Your task to perform on an android device: move a message to another label in the gmail app Image 0: 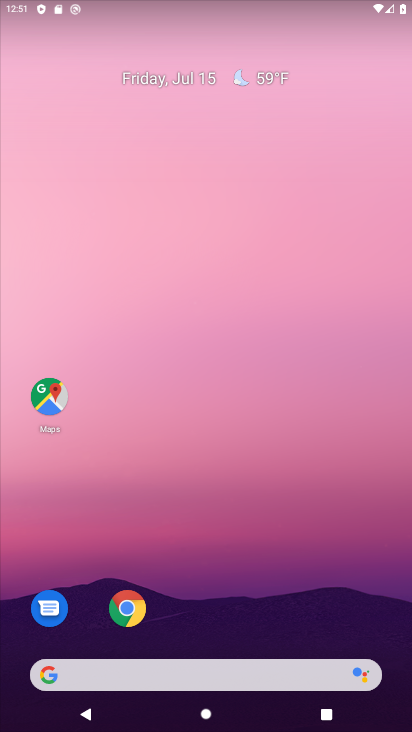
Step 0: drag from (273, 661) to (259, 298)
Your task to perform on an android device: move a message to another label in the gmail app Image 1: 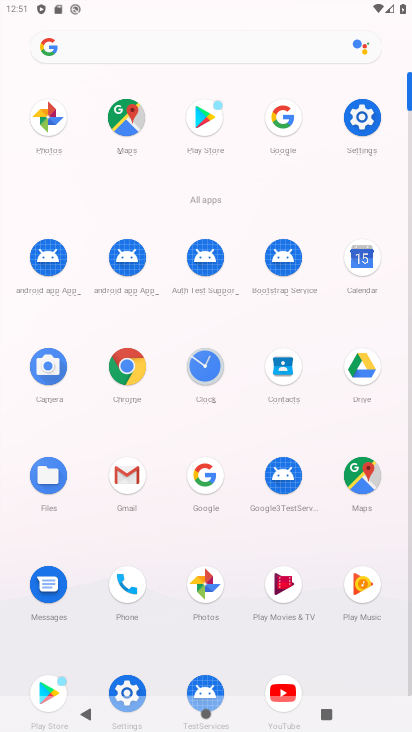
Step 1: click (135, 470)
Your task to perform on an android device: move a message to another label in the gmail app Image 2: 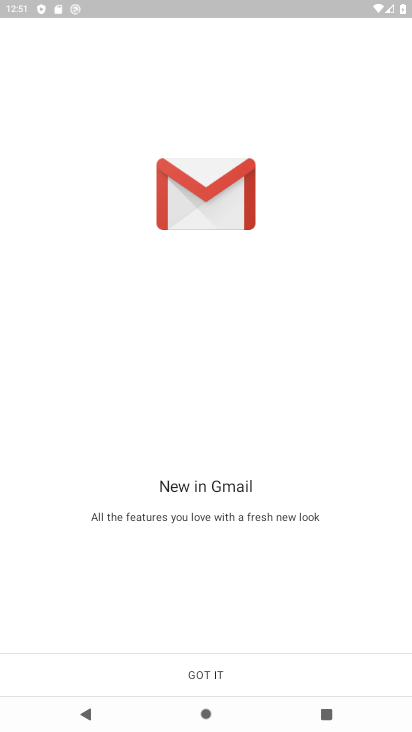
Step 2: click (216, 674)
Your task to perform on an android device: move a message to another label in the gmail app Image 3: 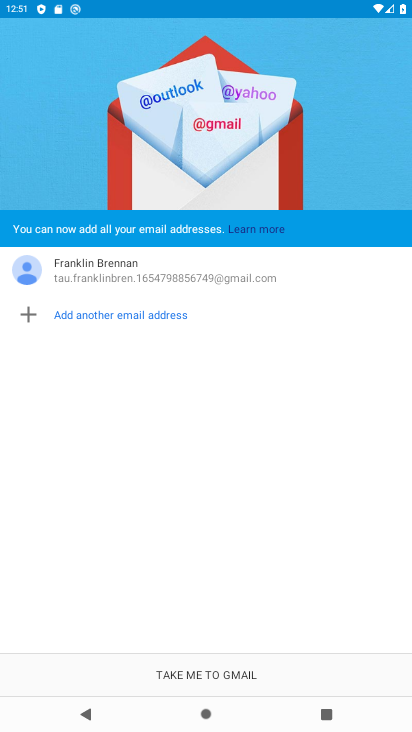
Step 3: click (214, 673)
Your task to perform on an android device: move a message to another label in the gmail app Image 4: 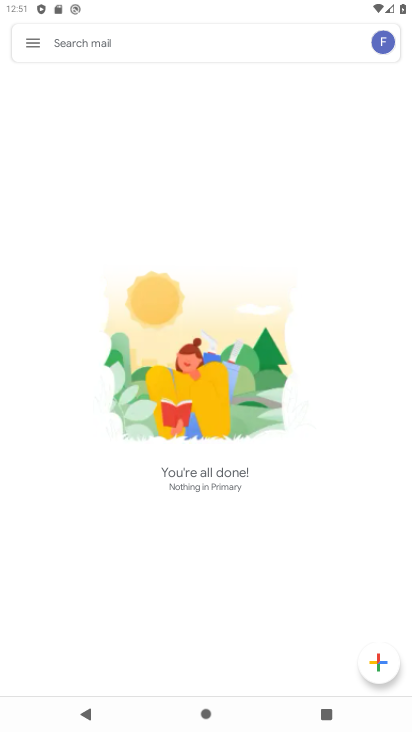
Step 4: task complete